Your task to perform on an android device: toggle pop-ups in chrome Image 0: 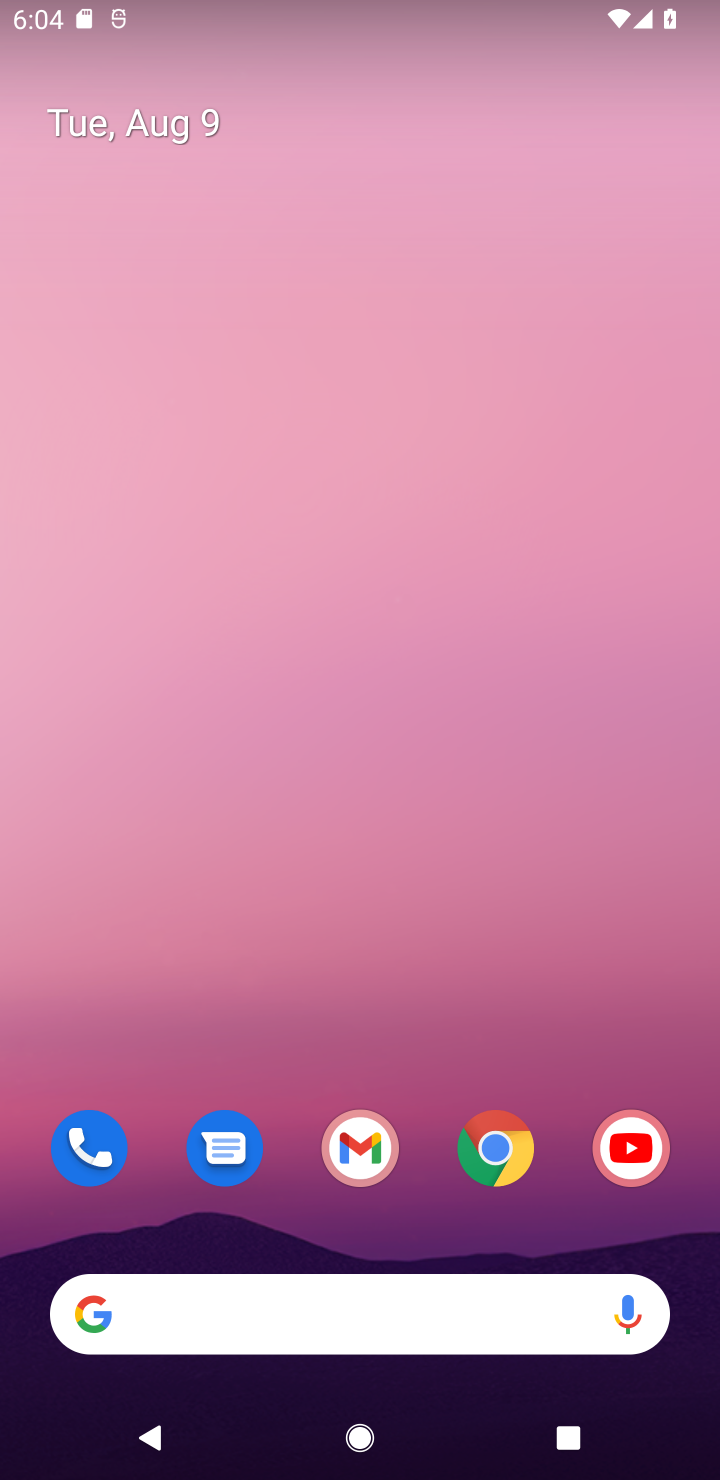
Step 0: click (480, 1154)
Your task to perform on an android device: toggle pop-ups in chrome Image 1: 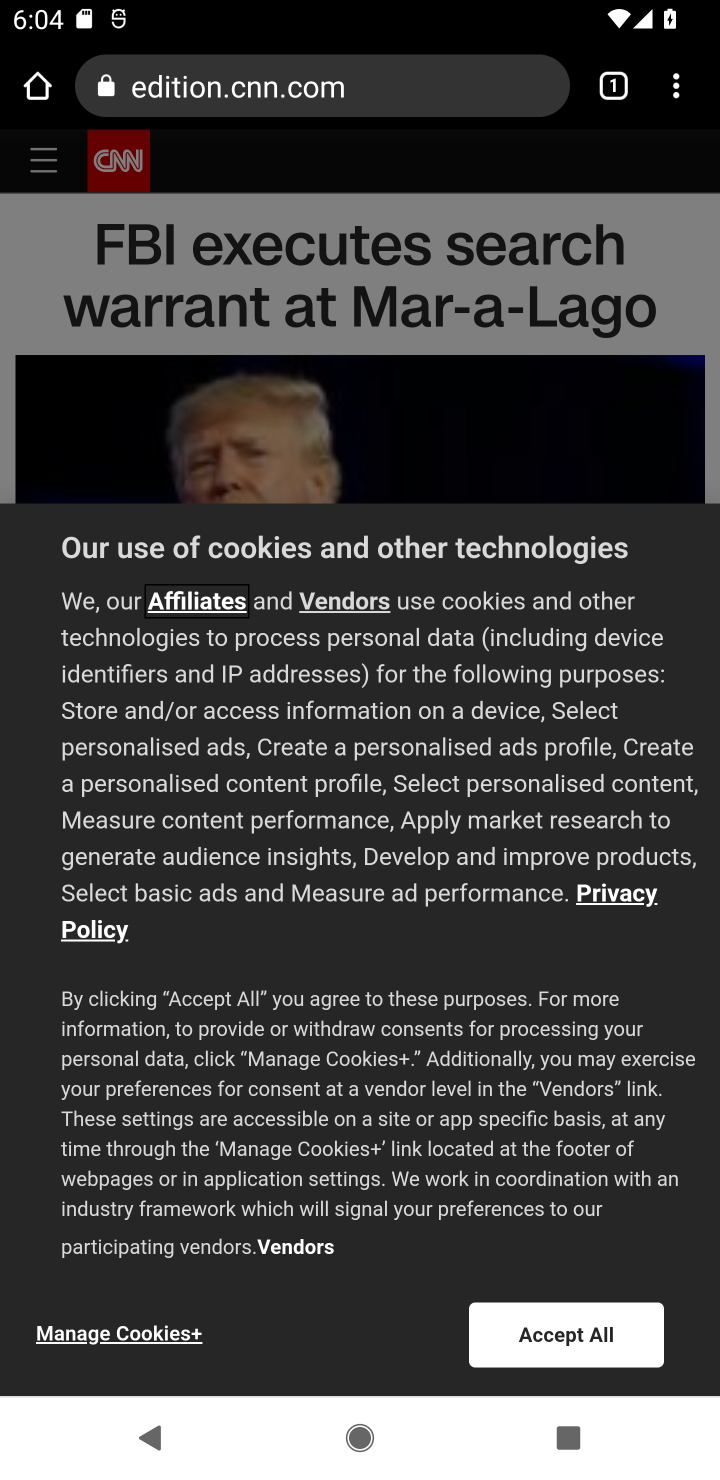
Step 1: click (669, 103)
Your task to perform on an android device: toggle pop-ups in chrome Image 2: 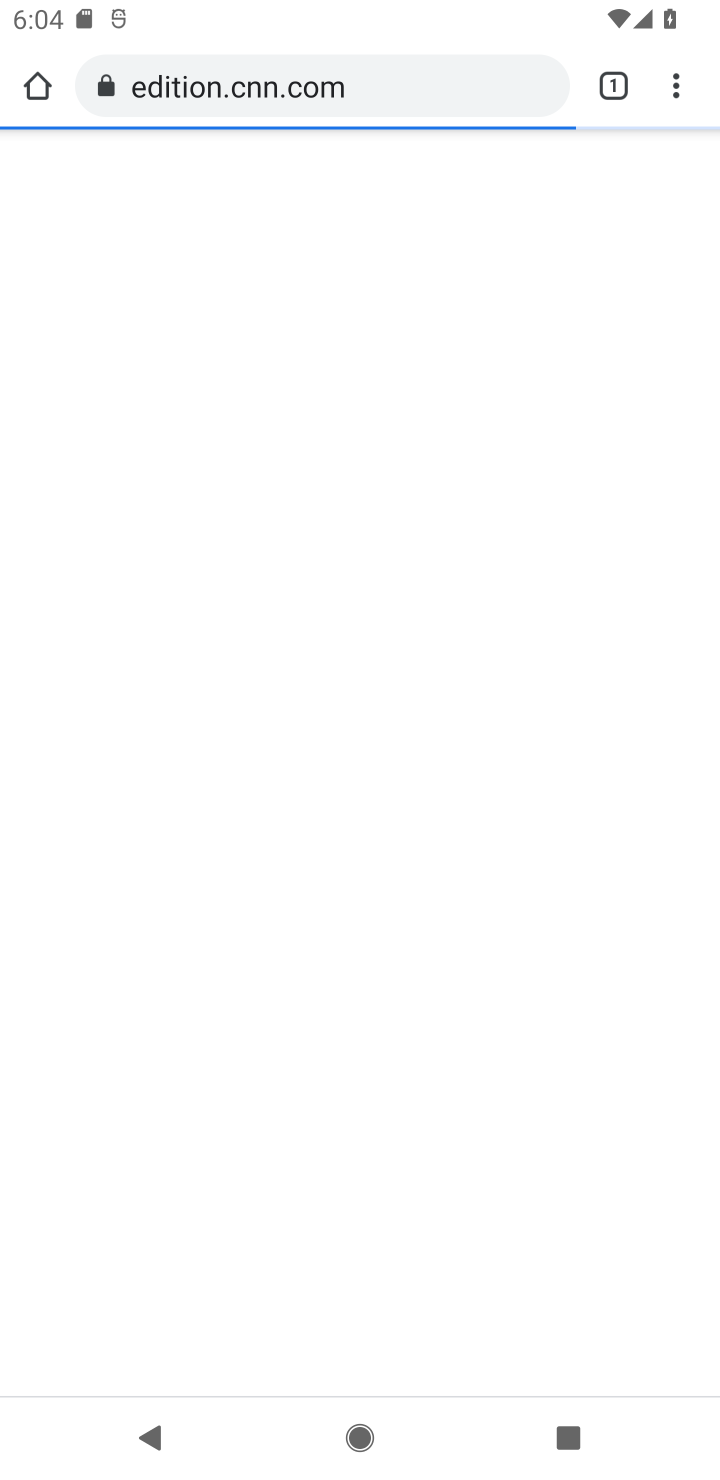
Step 2: click (660, 92)
Your task to perform on an android device: toggle pop-ups in chrome Image 3: 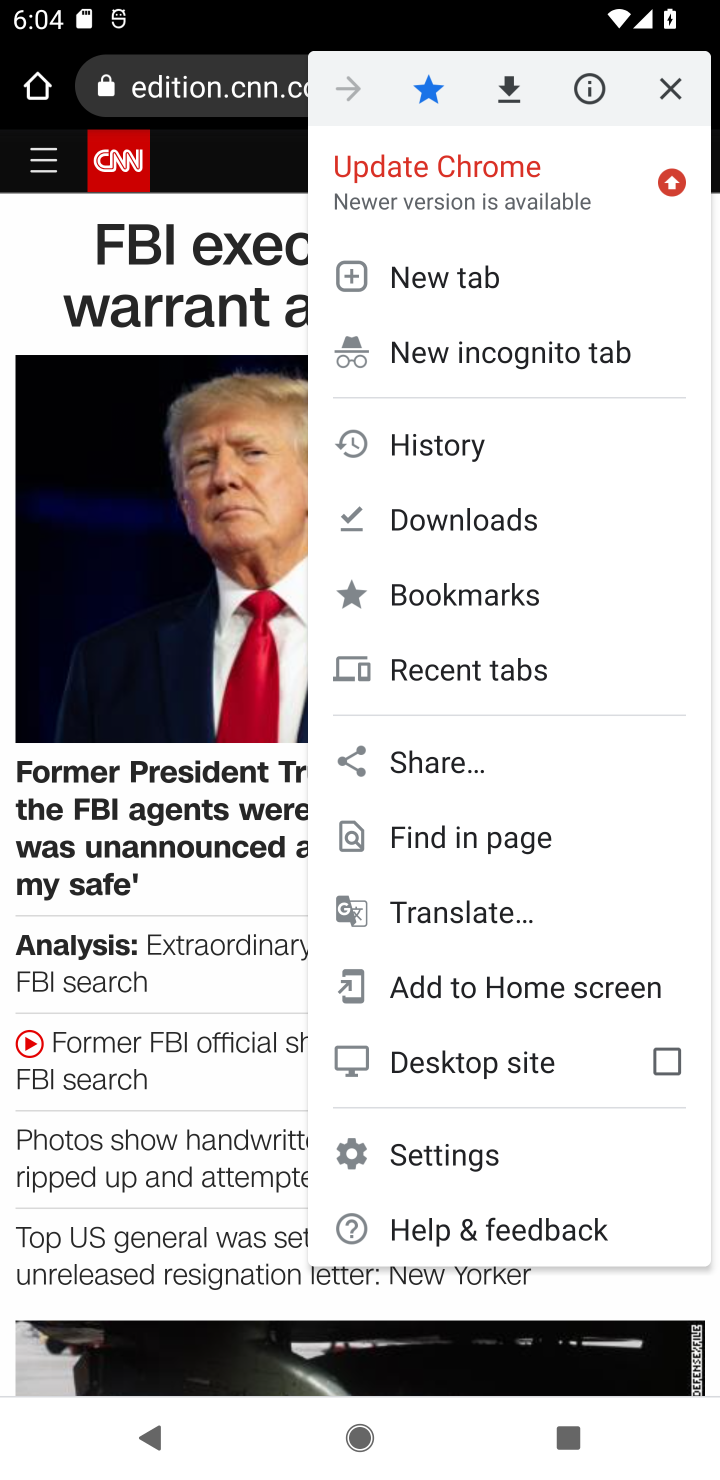
Step 3: click (467, 1156)
Your task to perform on an android device: toggle pop-ups in chrome Image 4: 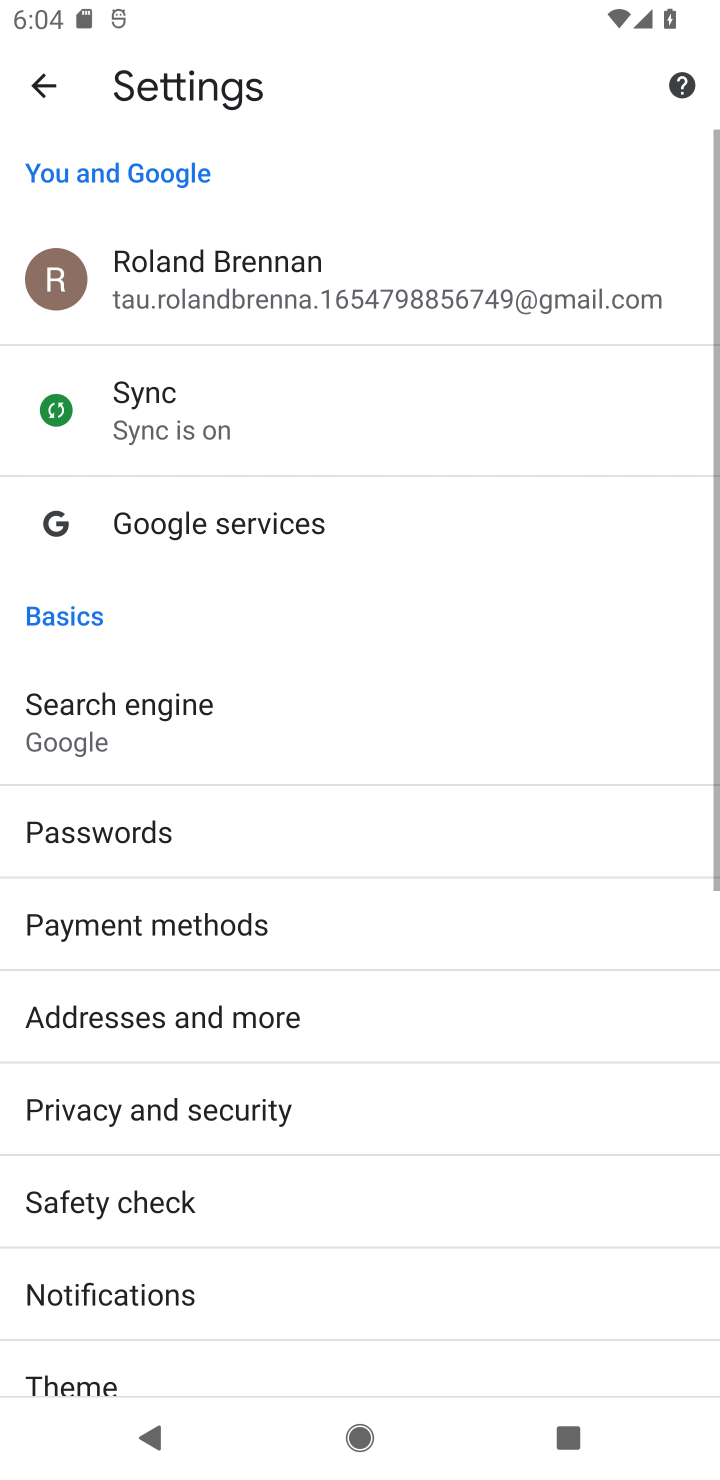
Step 4: drag from (187, 1274) to (258, 545)
Your task to perform on an android device: toggle pop-ups in chrome Image 5: 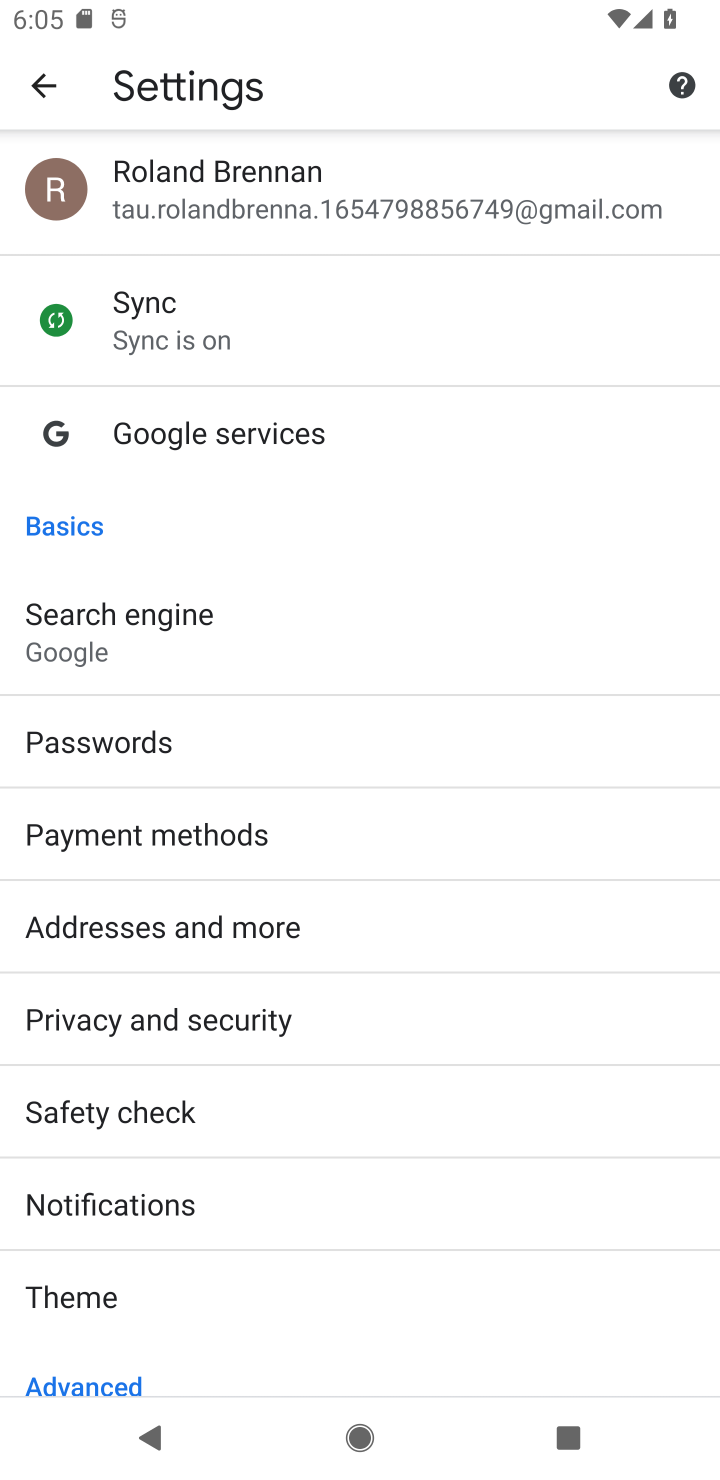
Step 5: drag from (316, 1305) to (486, 350)
Your task to perform on an android device: toggle pop-ups in chrome Image 6: 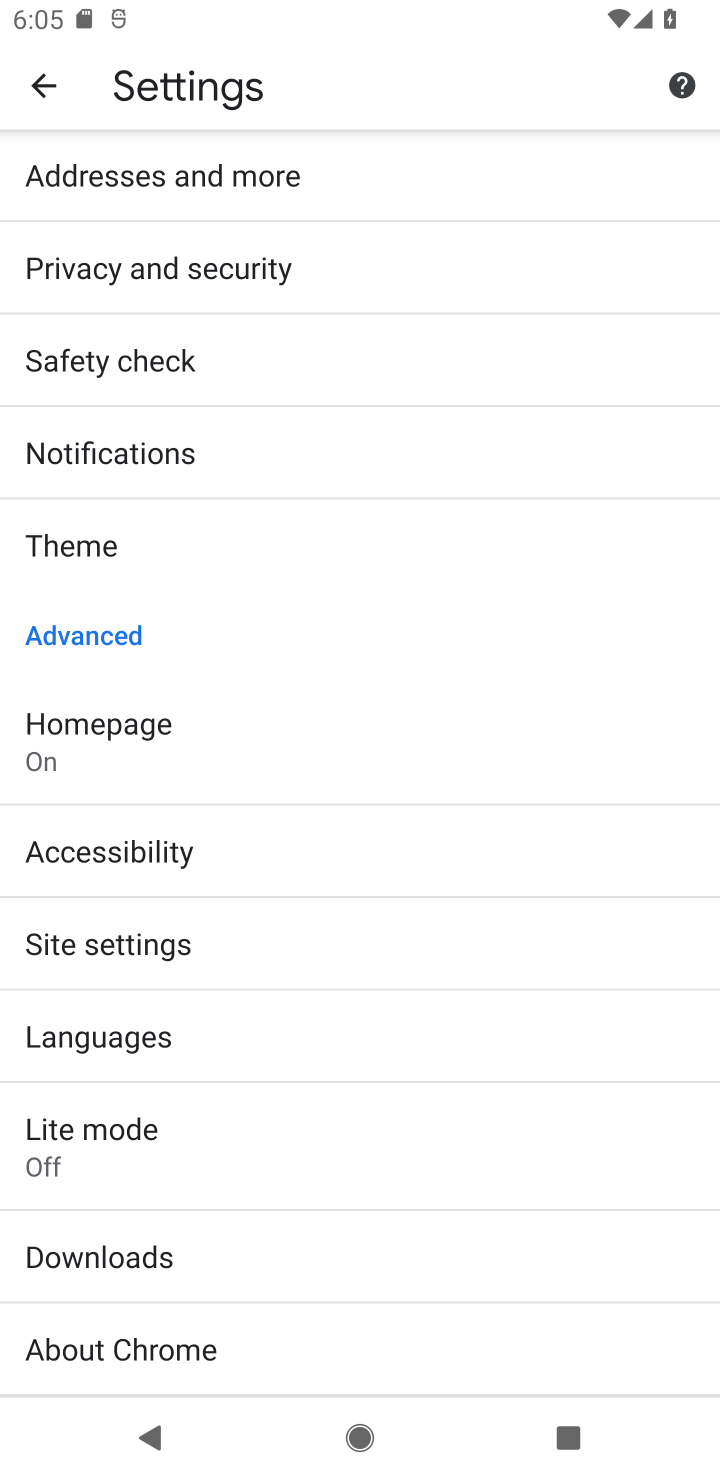
Step 6: click (144, 944)
Your task to perform on an android device: toggle pop-ups in chrome Image 7: 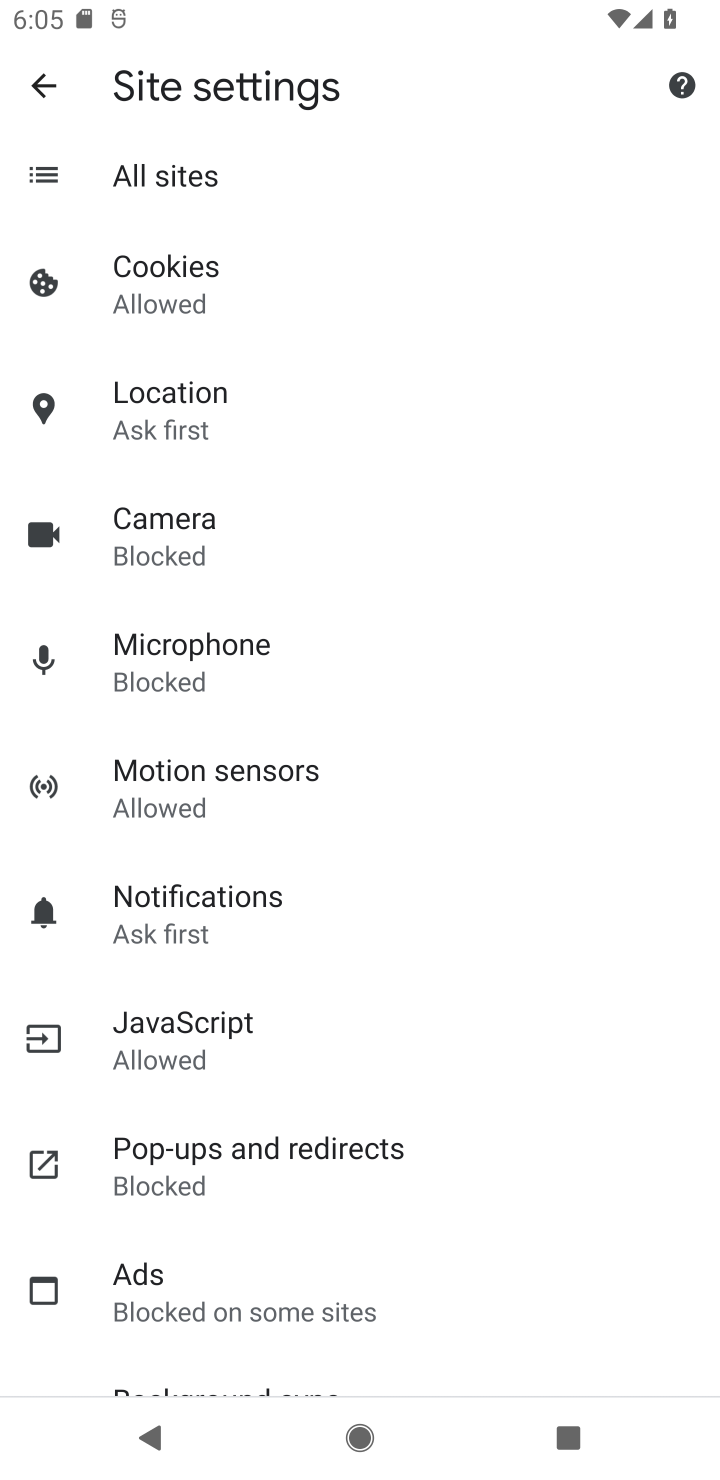
Step 7: click (250, 1166)
Your task to perform on an android device: toggle pop-ups in chrome Image 8: 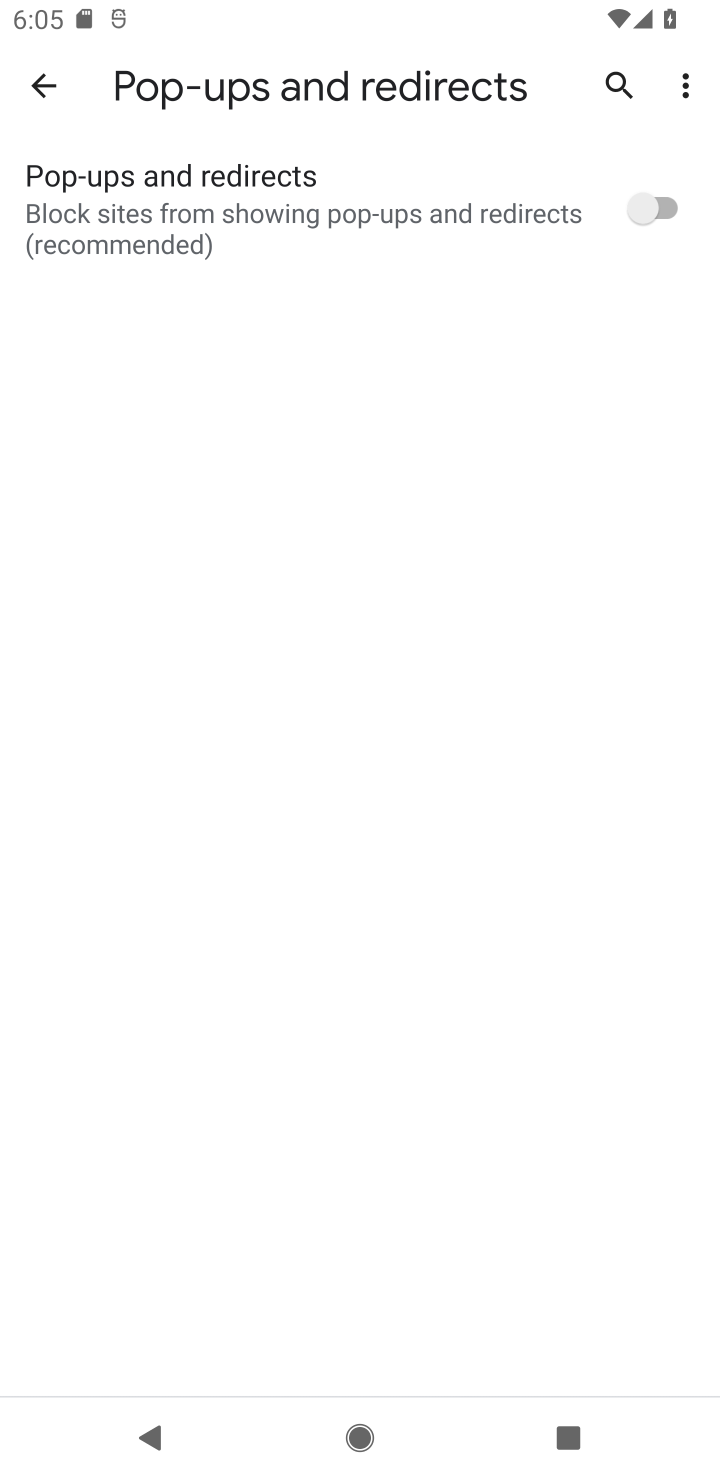
Step 8: click (690, 208)
Your task to perform on an android device: toggle pop-ups in chrome Image 9: 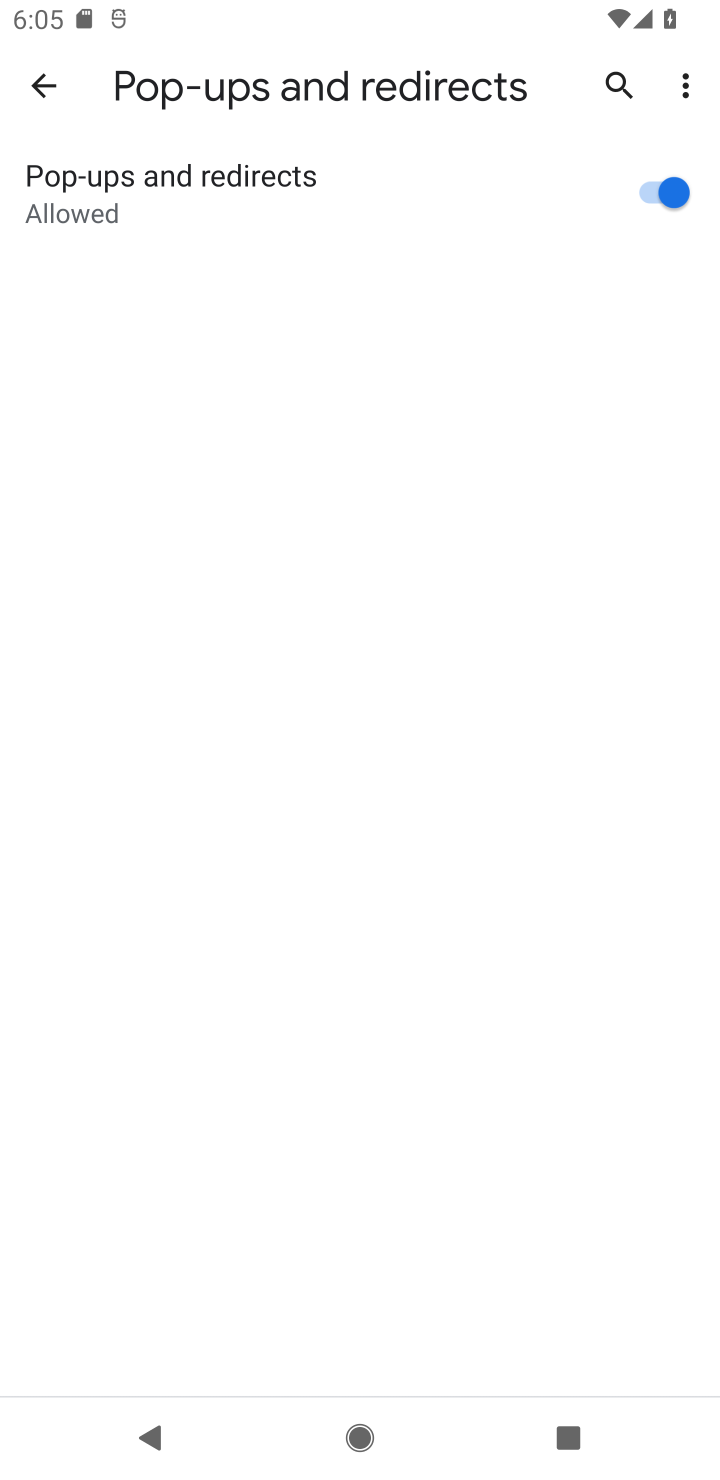
Step 9: task complete